Your task to perform on an android device: add a label to a message in the gmail app Image 0: 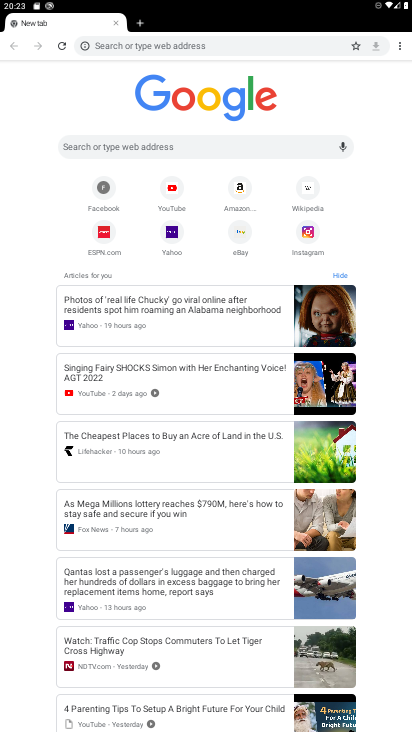
Step 0: press home button
Your task to perform on an android device: add a label to a message in the gmail app Image 1: 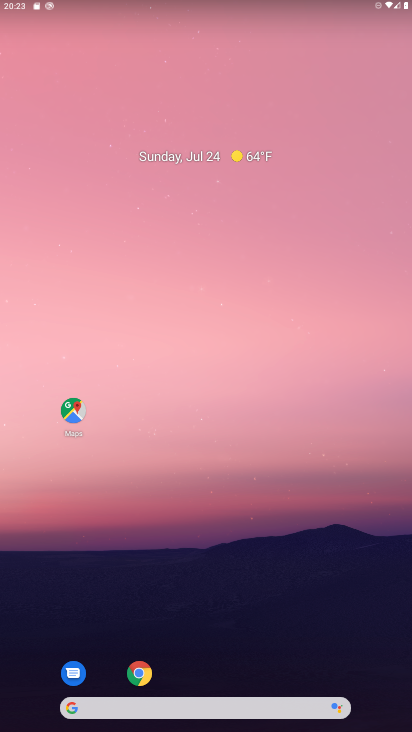
Step 1: drag from (313, 594) to (303, 121)
Your task to perform on an android device: add a label to a message in the gmail app Image 2: 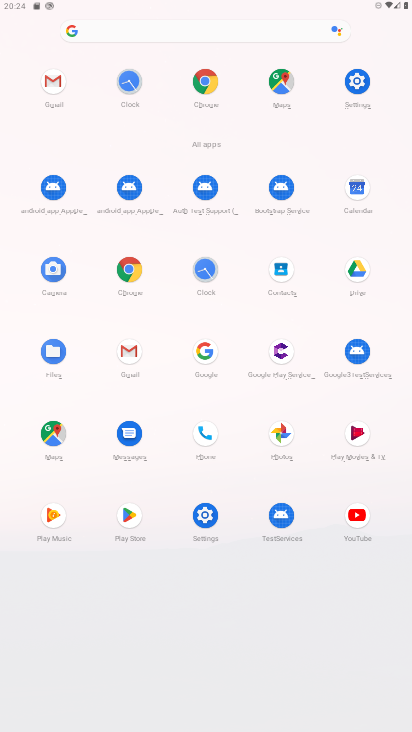
Step 2: click (128, 349)
Your task to perform on an android device: add a label to a message in the gmail app Image 3: 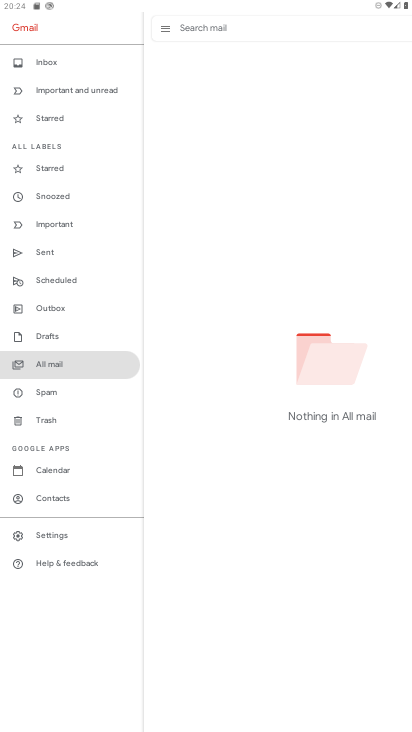
Step 3: task complete